Your task to perform on an android device: Go to Yahoo.com Image 0: 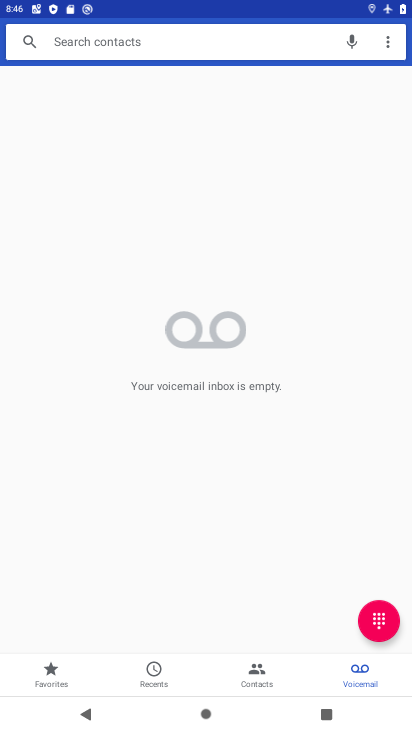
Step 0: press home button
Your task to perform on an android device: Go to Yahoo.com Image 1: 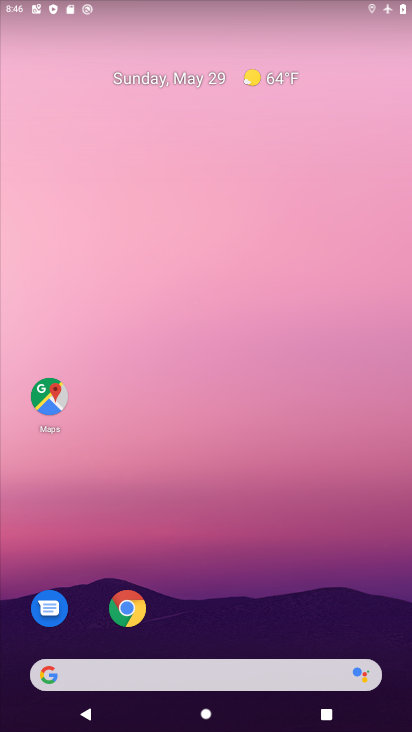
Step 1: click (127, 609)
Your task to perform on an android device: Go to Yahoo.com Image 2: 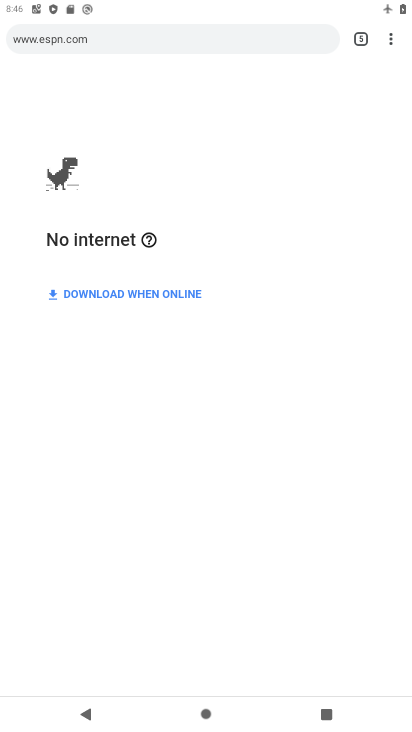
Step 2: click (390, 32)
Your task to perform on an android device: Go to Yahoo.com Image 3: 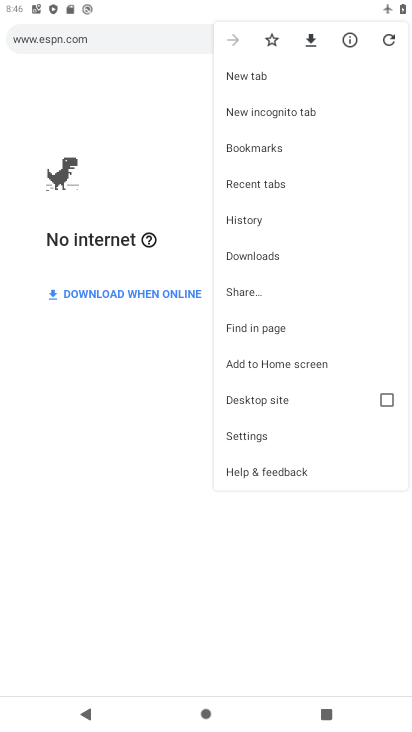
Step 3: click (232, 72)
Your task to perform on an android device: Go to Yahoo.com Image 4: 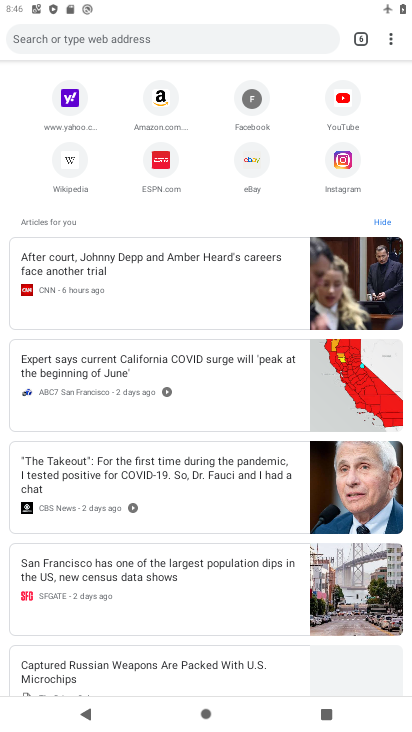
Step 4: click (59, 92)
Your task to perform on an android device: Go to Yahoo.com Image 5: 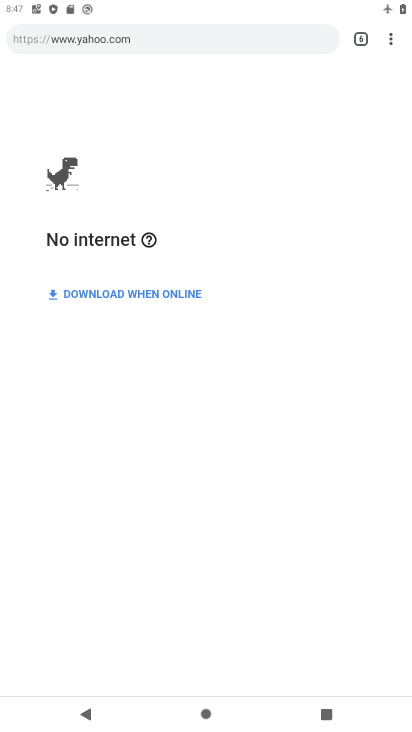
Step 5: task complete